Your task to perform on an android device: Search for "logitech g pro" on bestbuy.com, select the first entry, add it to the cart, then select checkout. Image 0: 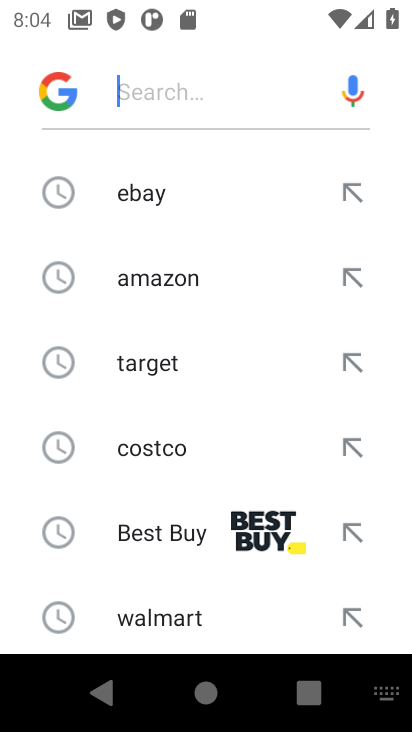
Step 0: click (180, 523)
Your task to perform on an android device: Search for "logitech g pro" on bestbuy.com, select the first entry, add it to the cart, then select checkout. Image 1: 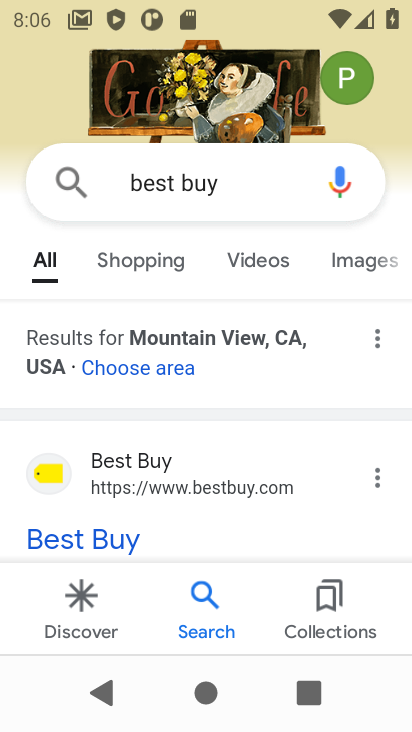
Step 1: click (105, 535)
Your task to perform on an android device: Search for "logitech g pro" on bestbuy.com, select the first entry, add it to the cart, then select checkout. Image 2: 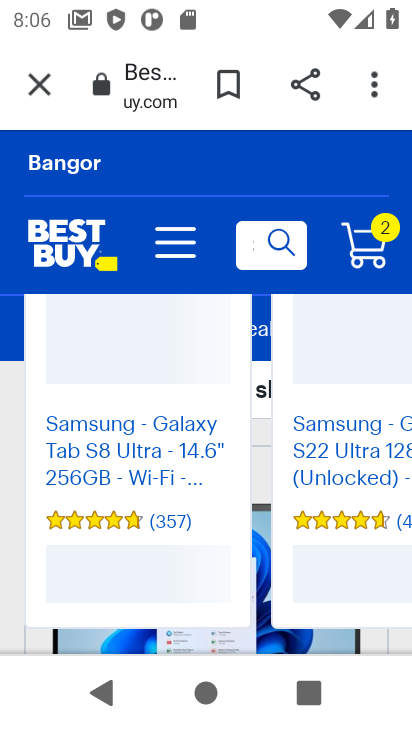
Step 2: click (279, 245)
Your task to perform on an android device: Search for "logitech g pro" on bestbuy.com, select the first entry, add it to the cart, then select checkout. Image 3: 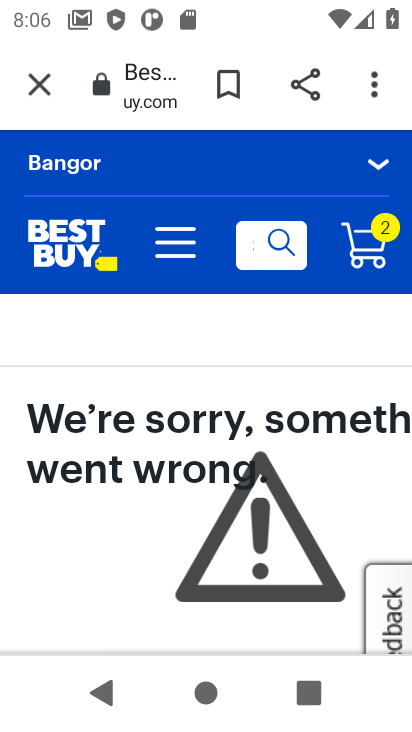
Step 3: click (279, 238)
Your task to perform on an android device: Search for "logitech g pro" on bestbuy.com, select the first entry, add it to the cart, then select checkout. Image 4: 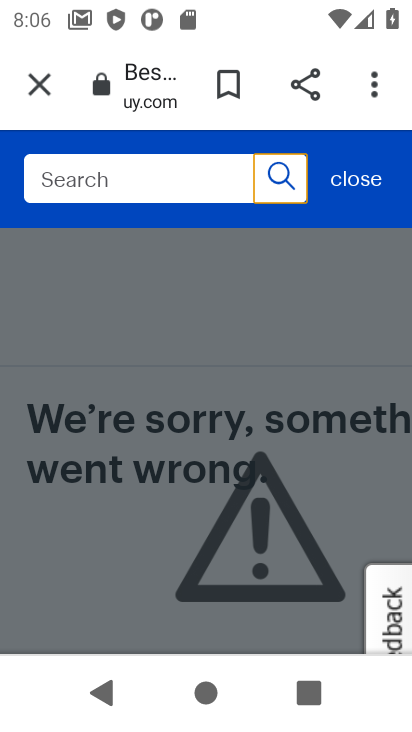
Step 4: type "logitech g pro"
Your task to perform on an android device: Search for "logitech g pro" on bestbuy.com, select the first entry, add it to the cart, then select checkout. Image 5: 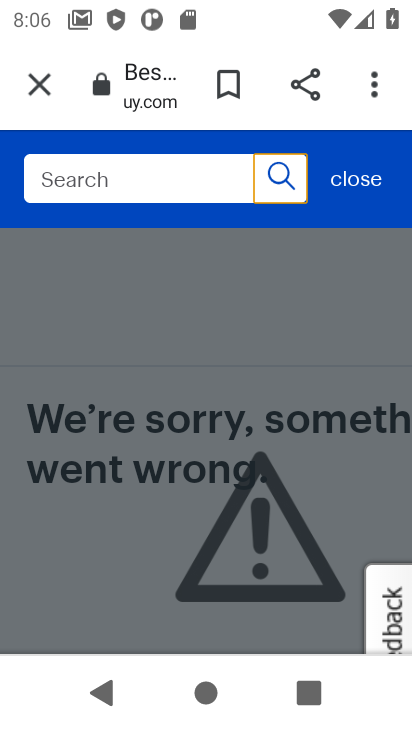
Step 5: click (171, 177)
Your task to perform on an android device: Search for "logitech g pro" on bestbuy.com, select the first entry, add it to the cart, then select checkout. Image 6: 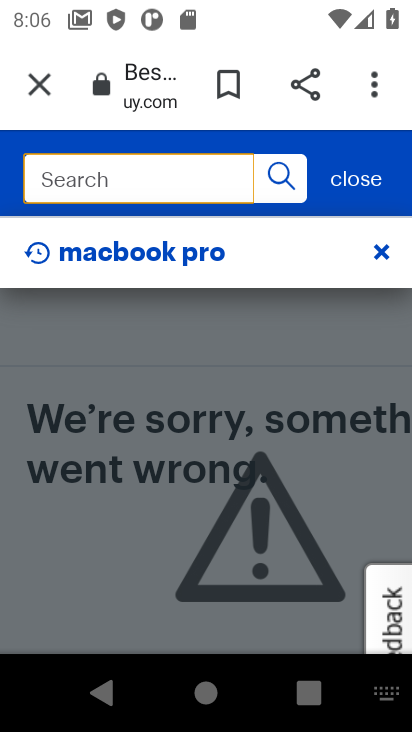
Step 6: type "logitech g pro"
Your task to perform on an android device: Search for "logitech g pro" on bestbuy.com, select the first entry, add it to the cart, then select checkout. Image 7: 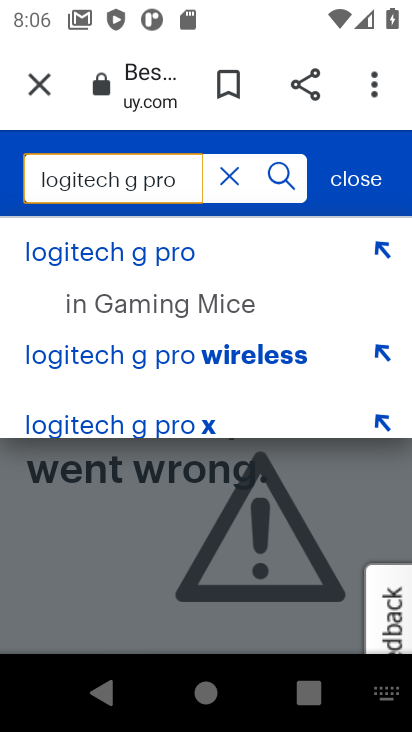
Step 7: click (141, 251)
Your task to perform on an android device: Search for "logitech g pro" on bestbuy.com, select the first entry, add it to the cart, then select checkout. Image 8: 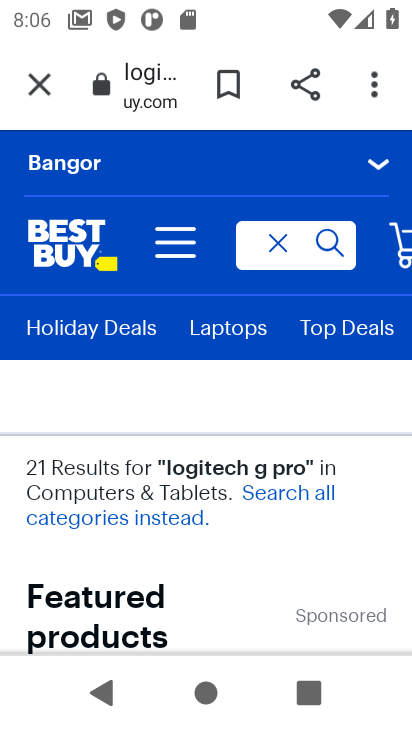
Step 8: drag from (229, 601) to (220, 236)
Your task to perform on an android device: Search for "logitech g pro" on bestbuy.com, select the first entry, add it to the cart, then select checkout. Image 9: 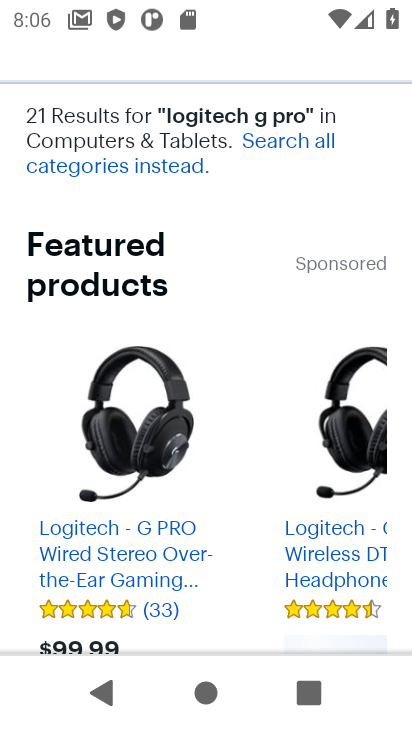
Step 9: drag from (190, 598) to (163, 34)
Your task to perform on an android device: Search for "logitech g pro" on bestbuy.com, select the first entry, add it to the cart, then select checkout. Image 10: 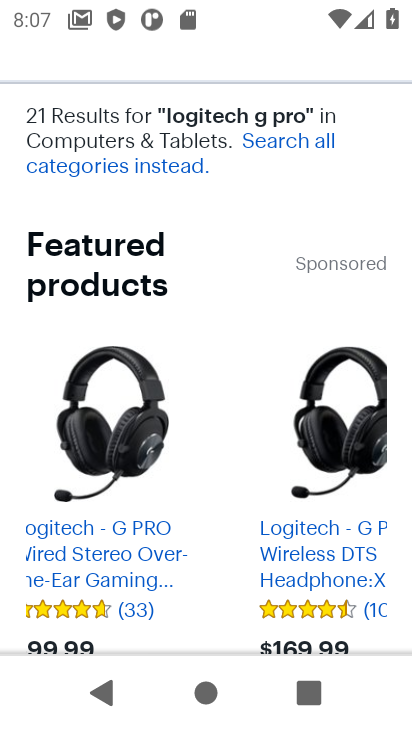
Step 10: drag from (194, 627) to (196, 101)
Your task to perform on an android device: Search for "logitech g pro" on bestbuy.com, select the first entry, add it to the cart, then select checkout. Image 11: 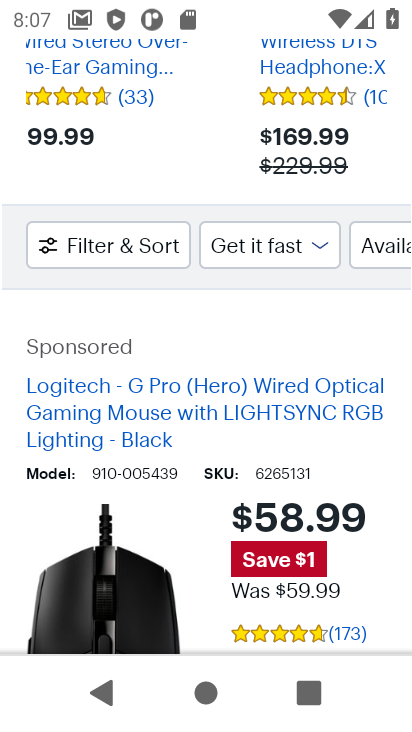
Step 11: click (350, 441)
Your task to perform on an android device: Search for "logitech g pro" on bestbuy.com, select the first entry, add it to the cart, then select checkout. Image 12: 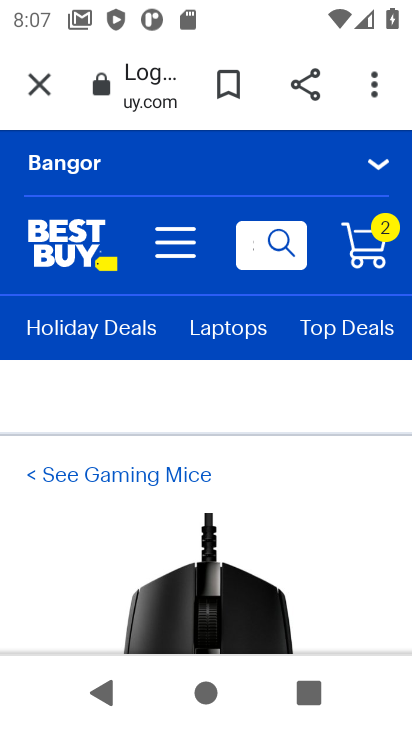
Step 12: drag from (319, 522) to (249, 68)
Your task to perform on an android device: Search for "logitech g pro" on bestbuy.com, select the first entry, add it to the cart, then select checkout. Image 13: 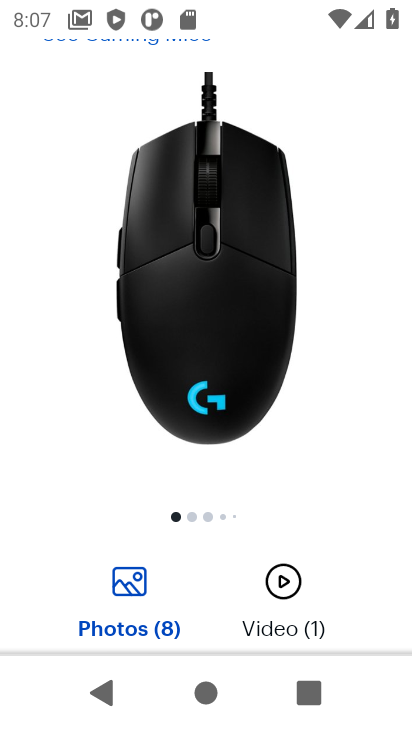
Step 13: drag from (225, 552) to (212, 167)
Your task to perform on an android device: Search for "logitech g pro" on bestbuy.com, select the first entry, add it to the cart, then select checkout. Image 14: 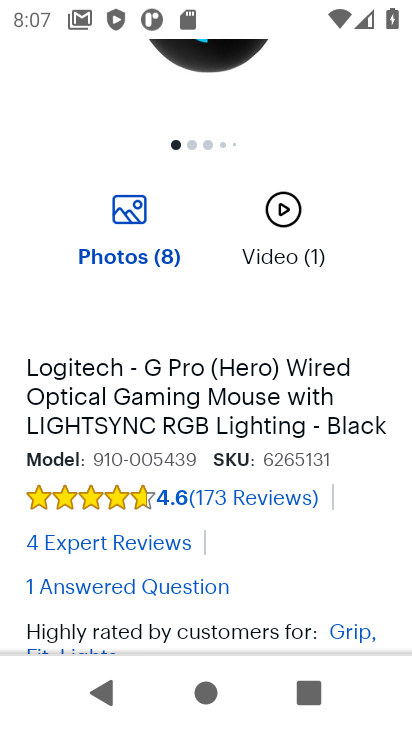
Step 14: drag from (312, 524) to (242, 20)
Your task to perform on an android device: Search for "logitech g pro" on bestbuy.com, select the first entry, add it to the cart, then select checkout. Image 15: 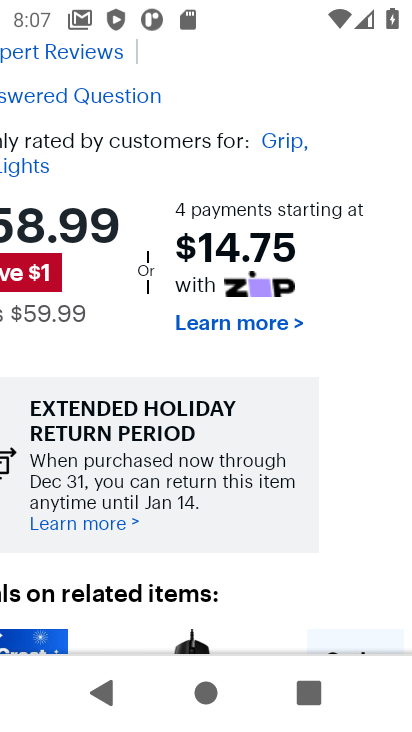
Step 15: drag from (123, 159) to (372, 203)
Your task to perform on an android device: Search for "logitech g pro" on bestbuy.com, select the first entry, add it to the cart, then select checkout. Image 16: 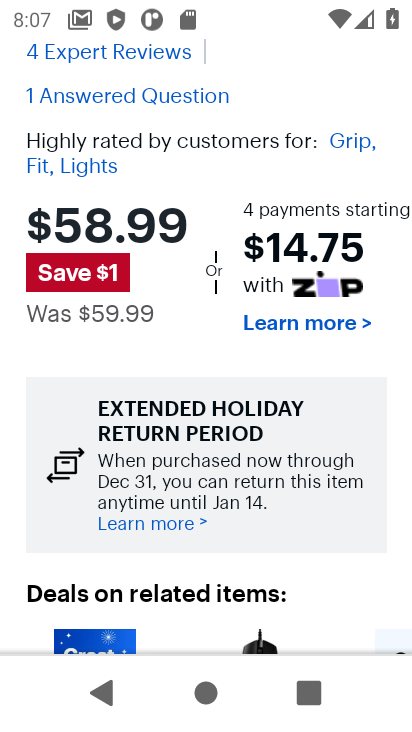
Step 16: drag from (224, 406) to (196, 103)
Your task to perform on an android device: Search for "logitech g pro" on bestbuy.com, select the first entry, add it to the cart, then select checkout. Image 17: 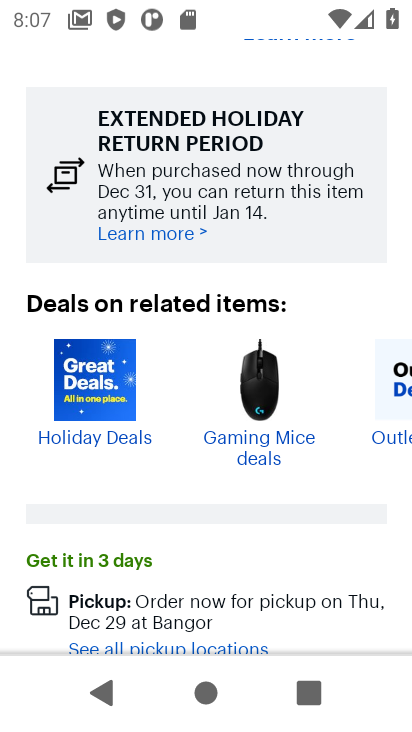
Step 17: drag from (221, 554) to (186, 7)
Your task to perform on an android device: Search for "logitech g pro" on bestbuy.com, select the first entry, add it to the cart, then select checkout. Image 18: 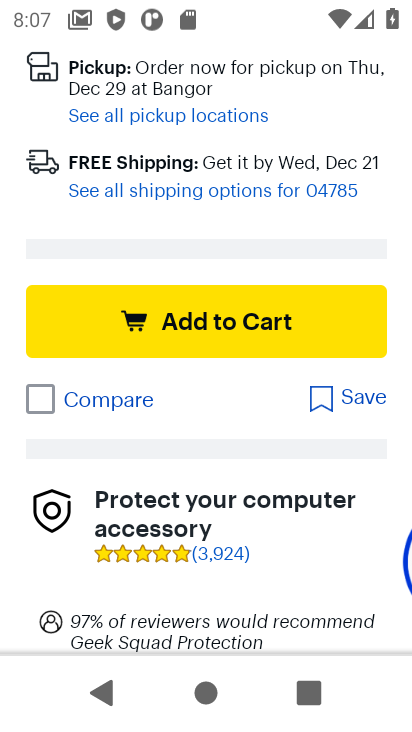
Step 18: click (205, 317)
Your task to perform on an android device: Search for "logitech g pro" on bestbuy.com, select the first entry, add it to the cart, then select checkout. Image 19: 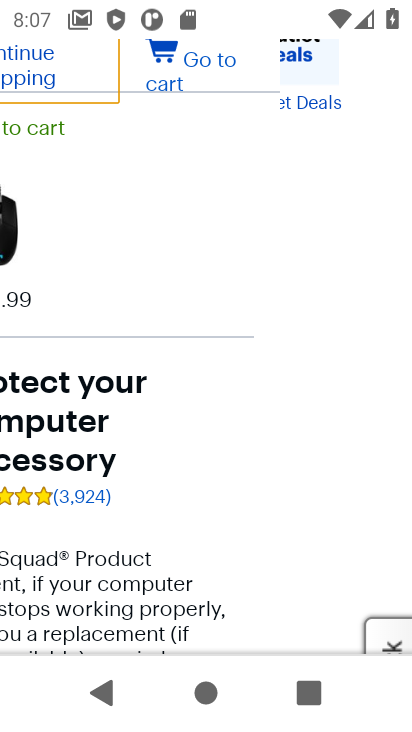
Step 19: click (171, 61)
Your task to perform on an android device: Search for "logitech g pro" on bestbuy.com, select the first entry, add it to the cart, then select checkout. Image 20: 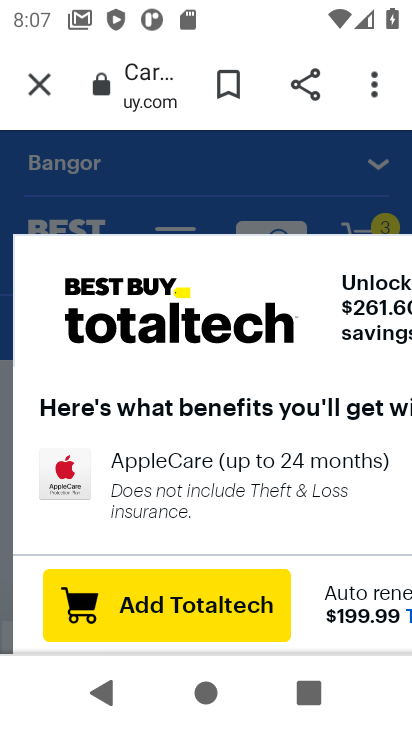
Step 20: drag from (262, 561) to (219, 281)
Your task to perform on an android device: Search for "logitech g pro" on bestbuy.com, select the first entry, add it to the cart, then select checkout. Image 21: 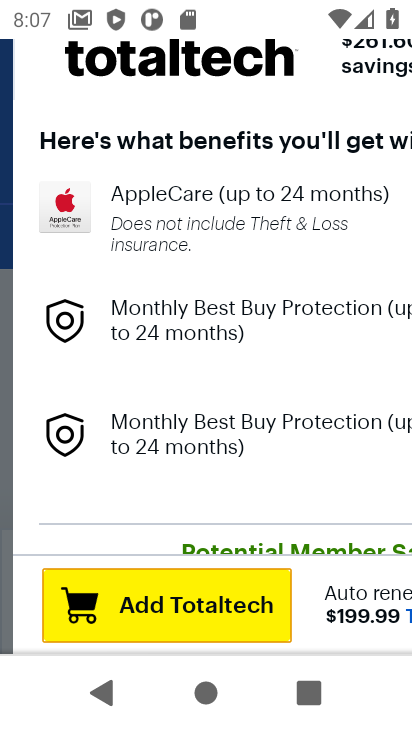
Step 21: drag from (331, 292) to (37, 335)
Your task to perform on an android device: Search for "logitech g pro" on bestbuy.com, select the first entry, add it to the cart, then select checkout. Image 22: 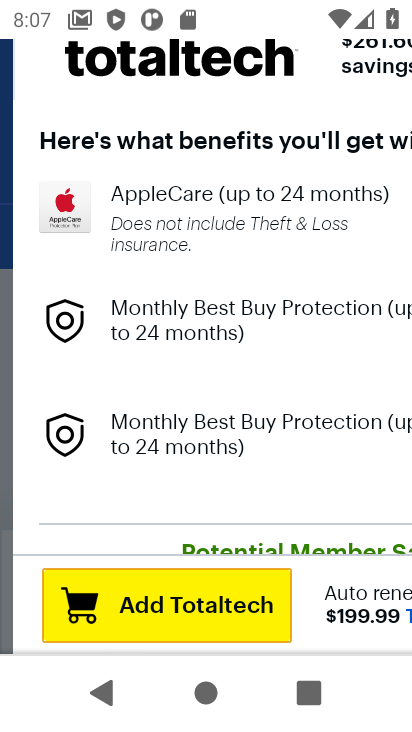
Step 22: drag from (303, 199) to (298, 499)
Your task to perform on an android device: Search for "logitech g pro" on bestbuy.com, select the first entry, add it to the cart, then select checkout. Image 23: 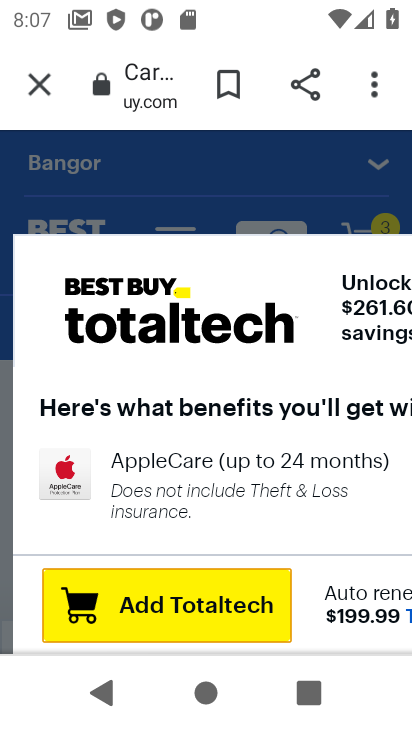
Step 23: drag from (371, 333) to (38, 309)
Your task to perform on an android device: Search for "logitech g pro" on bestbuy.com, select the first entry, add it to the cart, then select checkout. Image 24: 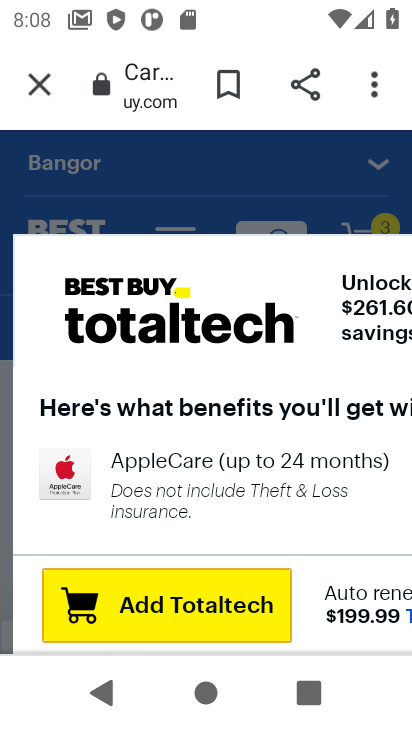
Step 24: click (179, 182)
Your task to perform on an android device: Search for "logitech g pro" on bestbuy.com, select the first entry, add it to the cart, then select checkout. Image 25: 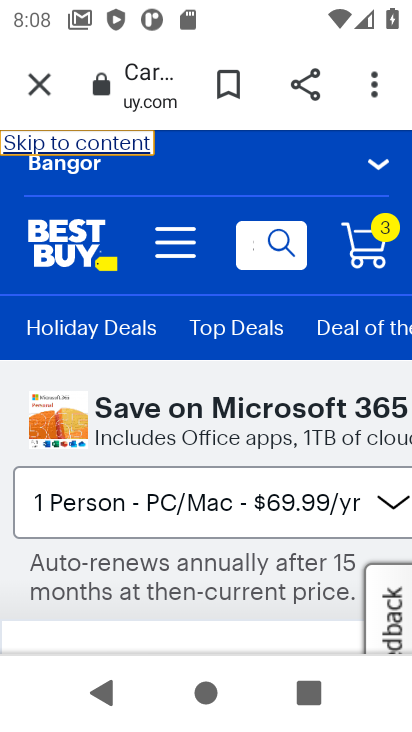
Step 25: drag from (213, 578) to (166, 13)
Your task to perform on an android device: Search for "logitech g pro" on bestbuy.com, select the first entry, add it to the cart, then select checkout. Image 26: 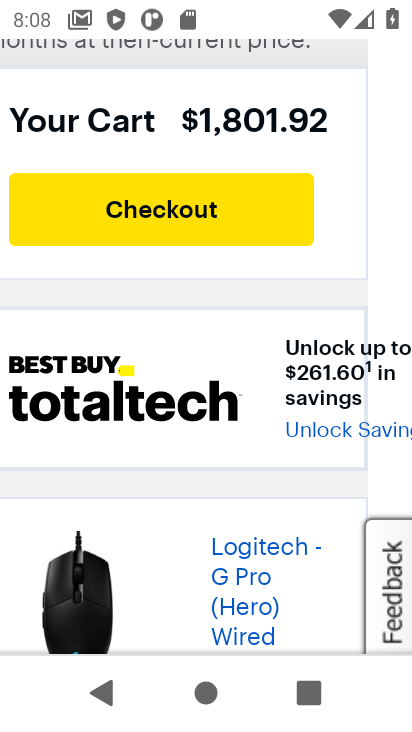
Step 26: click (157, 226)
Your task to perform on an android device: Search for "logitech g pro" on bestbuy.com, select the first entry, add it to the cart, then select checkout. Image 27: 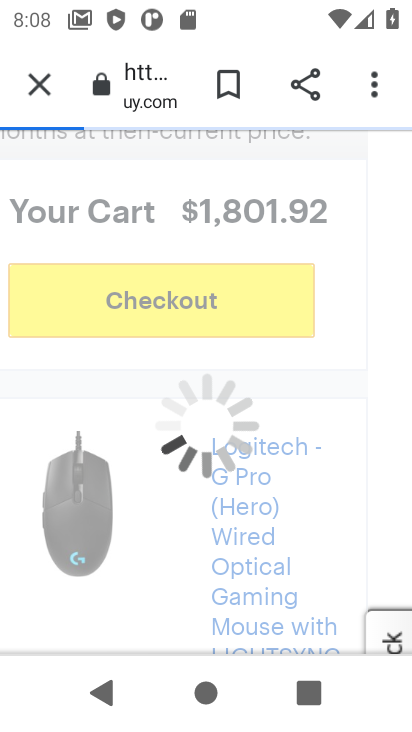
Step 27: task complete